Your task to perform on an android device: set the timer Image 0: 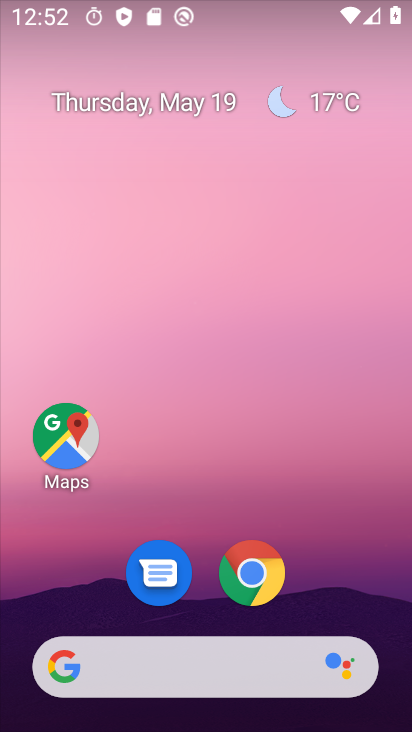
Step 0: drag from (206, 487) to (264, 53)
Your task to perform on an android device: set the timer Image 1: 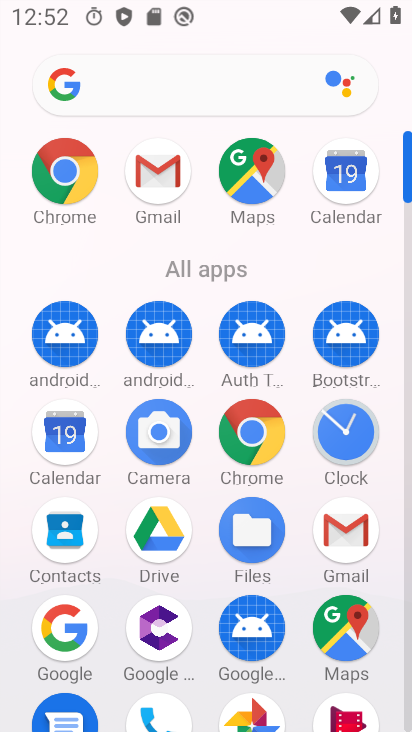
Step 1: click (333, 444)
Your task to perform on an android device: set the timer Image 2: 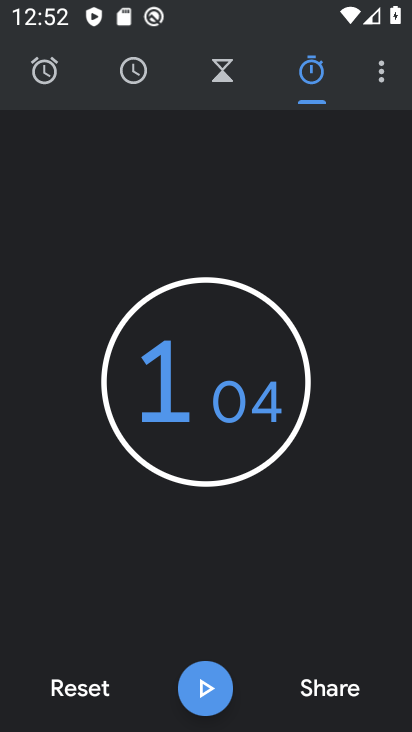
Step 2: click (234, 32)
Your task to perform on an android device: set the timer Image 3: 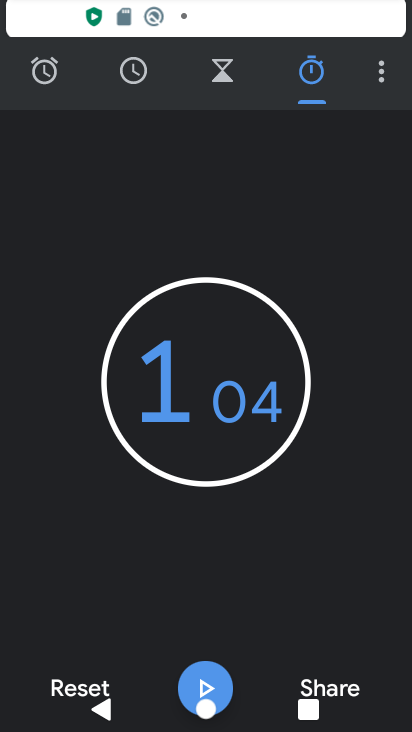
Step 3: click (219, 62)
Your task to perform on an android device: set the timer Image 4: 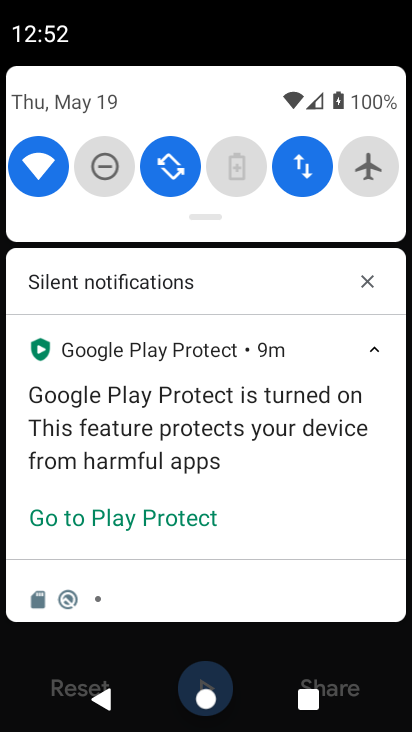
Step 4: drag from (128, 630) to (302, 10)
Your task to perform on an android device: set the timer Image 5: 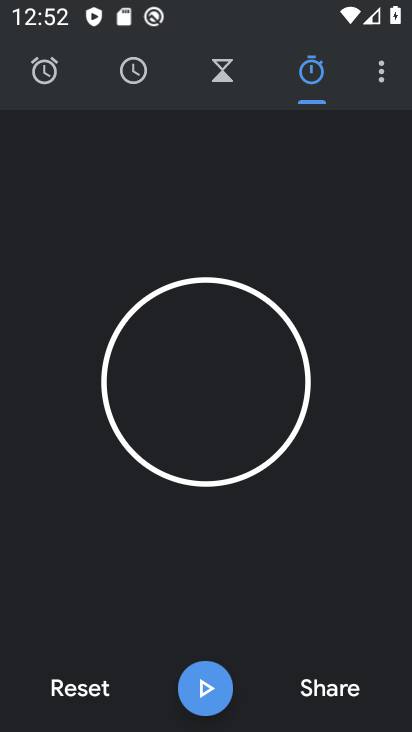
Step 5: click (213, 64)
Your task to perform on an android device: set the timer Image 6: 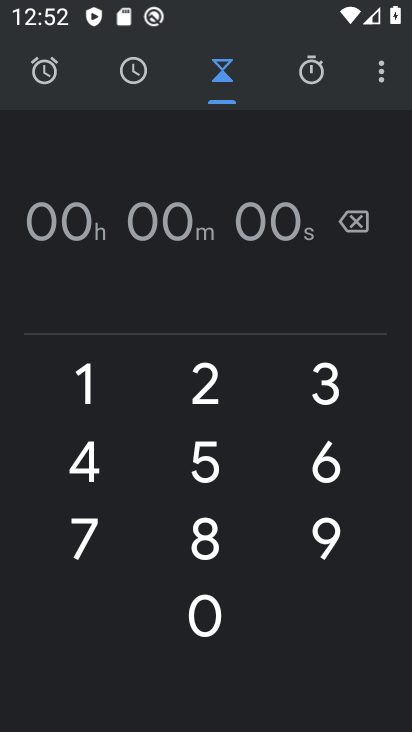
Step 6: click (215, 394)
Your task to perform on an android device: set the timer Image 7: 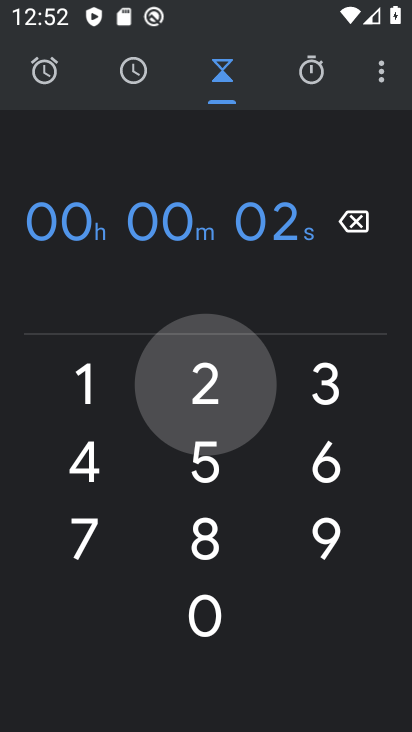
Step 7: click (214, 474)
Your task to perform on an android device: set the timer Image 8: 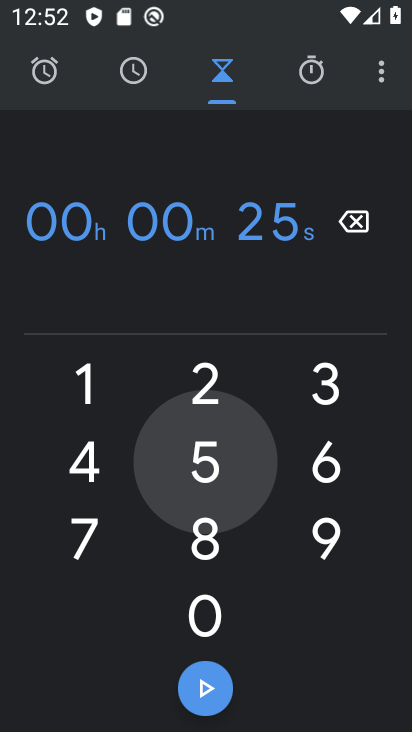
Step 8: click (314, 360)
Your task to perform on an android device: set the timer Image 9: 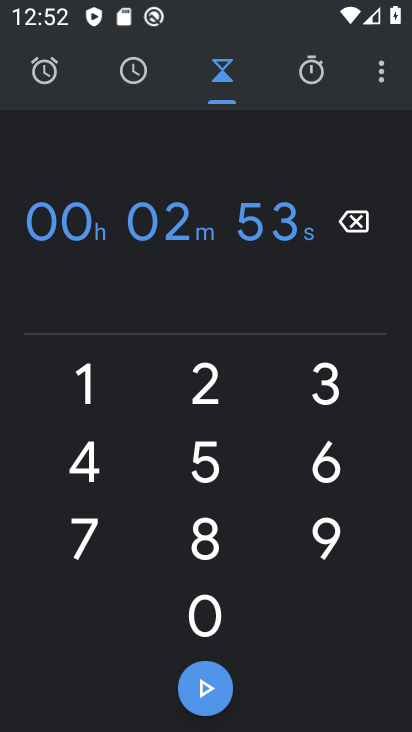
Step 9: click (172, 436)
Your task to perform on an android device: set the timer Image 10: 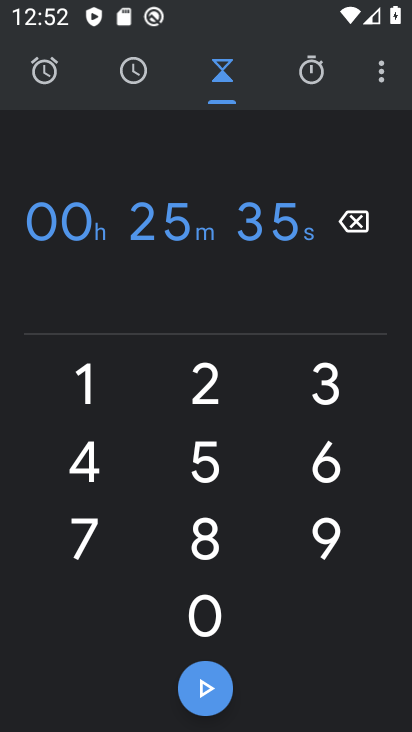
Step 10: task complete